Your task to perform on an android device: turn off wifi Image 0: 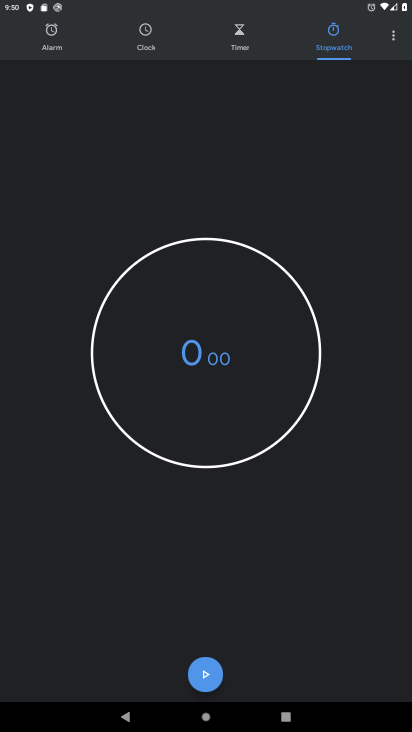
Step 0: press home button
Your task to perform on an android device: turn off wifi Image 1: 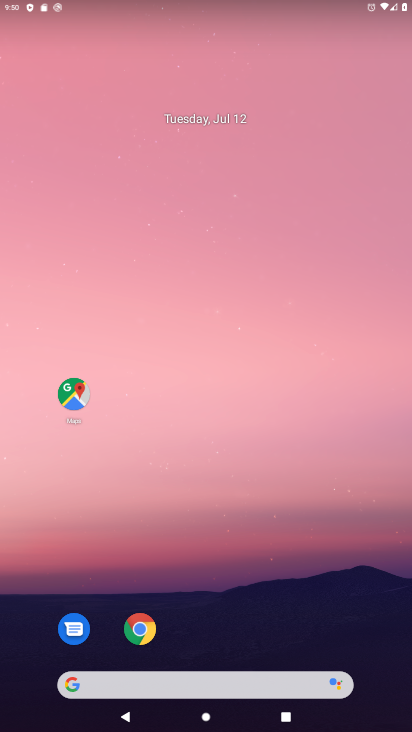
Step 1: drag from (379, 640) to (307, 110)
Your task to perform on an android device: turn off wifi Image 2: 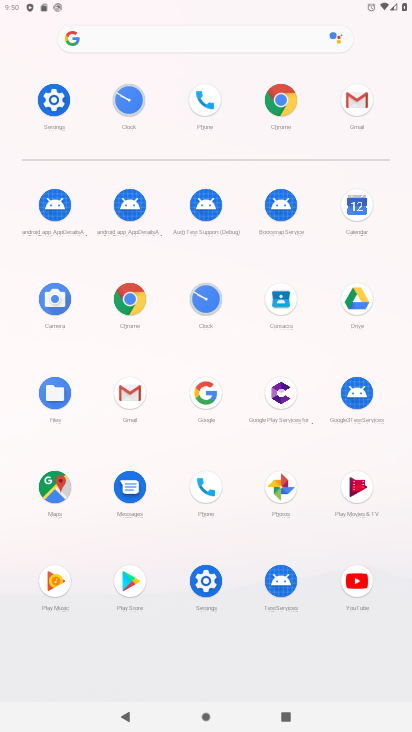
Step 2: click (205, 582)
Your task to perform on an android device: turn off wifi Image 3: 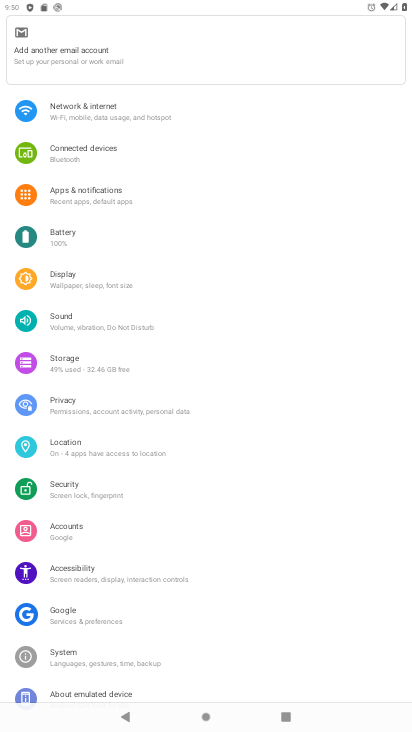
Step 3: click (57, 107)
Your task to perform on an android device: turn off wifi Image 4: 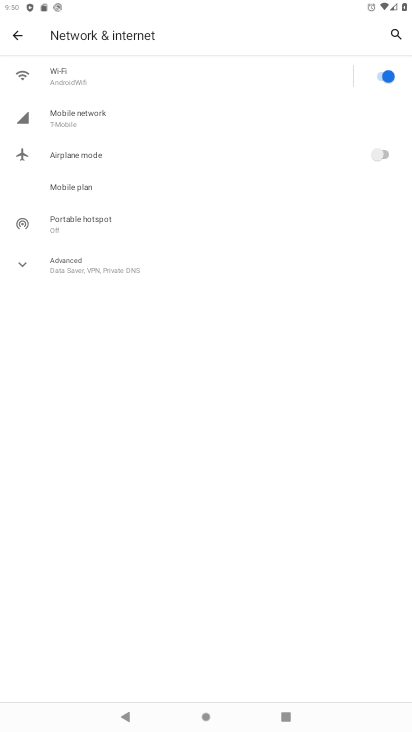
Step 4: click (377, 75)
Your task to perform on an android device: turn off wifi Image 5: 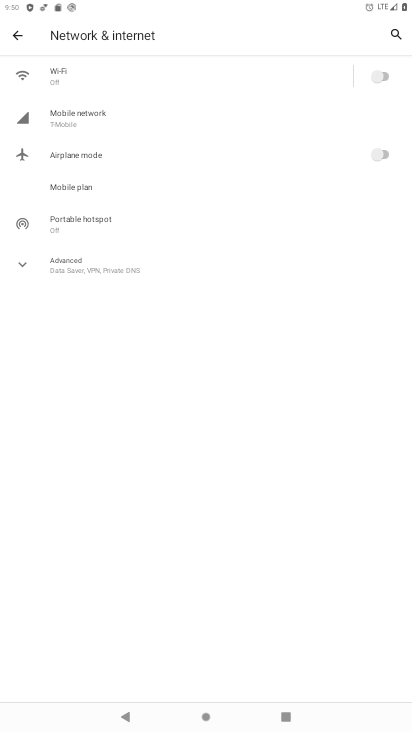
Step 5: task complete